Your task to perform on an android device: turn on translation in the chrome app Image 0: 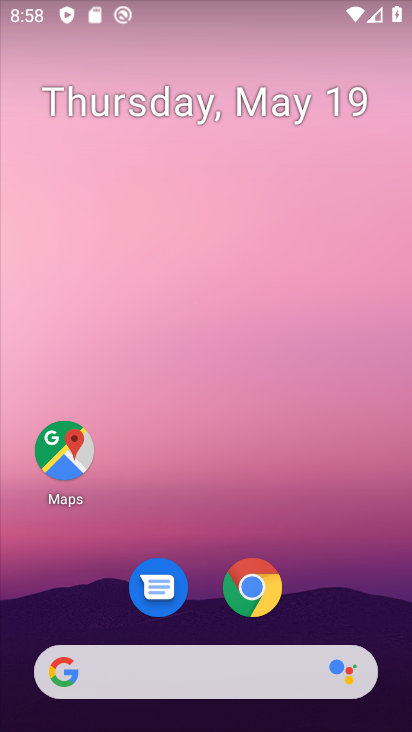
Step 0: click (235, 590)
Your task to perform on an android device: turn on translation in the chrome app Image 1: 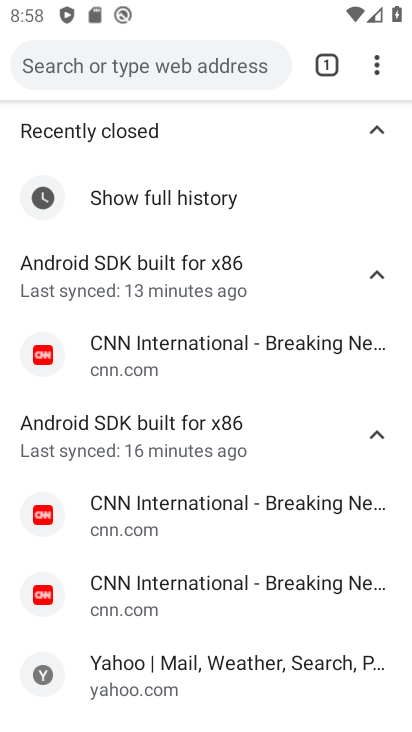
Step 1: drag from (378, 61) to (161, 547)
Your task to perform on an android device: turn on translation in the chrome app Image 2: 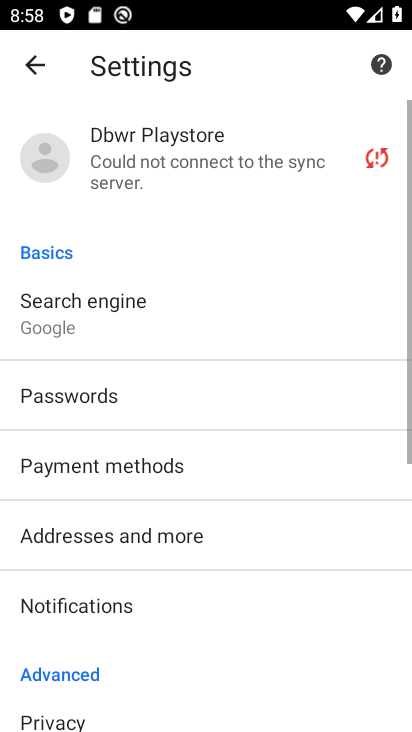
Step 2: drag from (161, 546) to (193, 59)
Your task to perform on an android device: turn on translation in the chrome app Image 3: 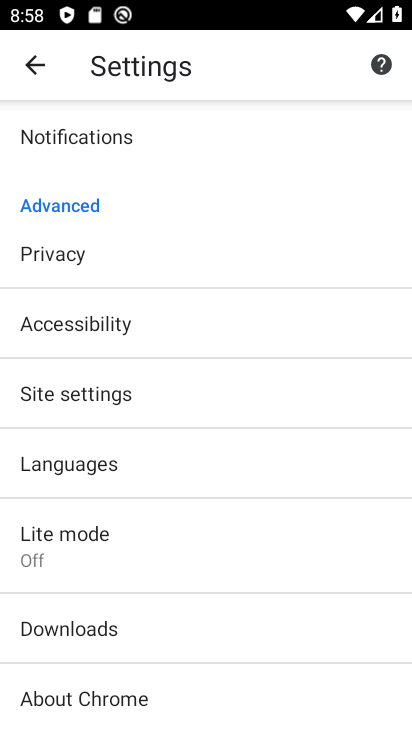
Step 3: click (138, 470)
Your task to perform on an android device: turn on translation in the chrome app Image 4: 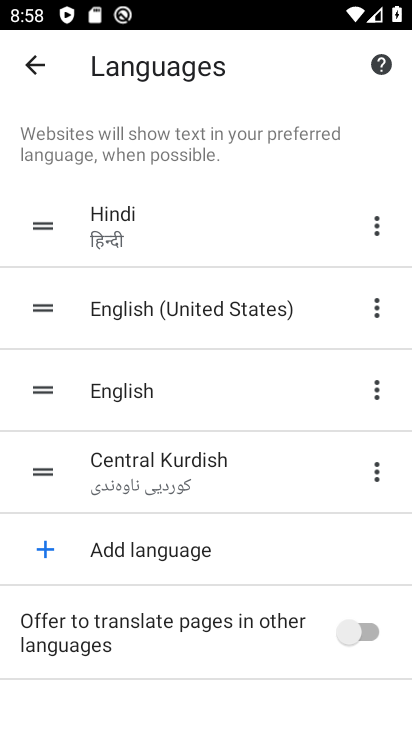
Step 4: click (349, 637)
Your task to perform on an android device: turn on translation in the chrome app Image 5: 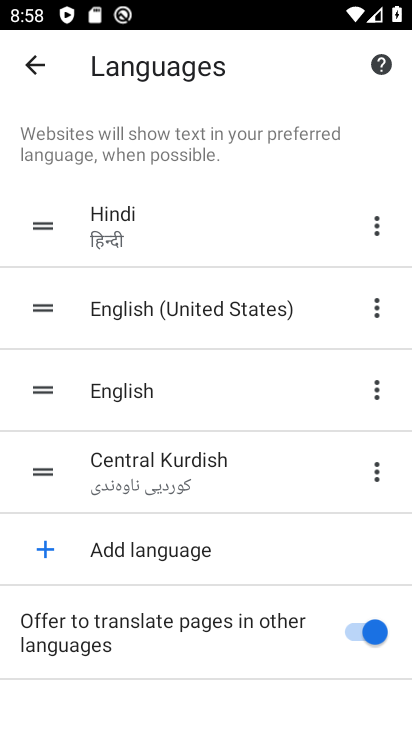
Step 5: task complete